Your task to perform on an android device: Is it going to rain this weekend? Image 0: 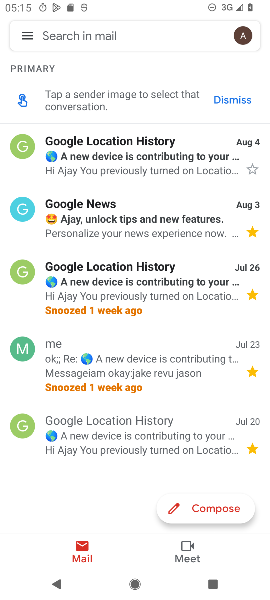
Step 0: press home button
Your task to perform on an android device: Is it going to rain this weekend? Image 1: 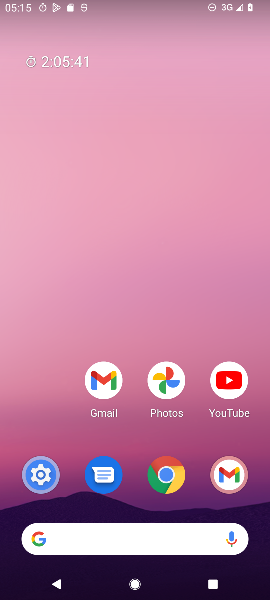
Step 1: click (120, 539)
Your task to perform on an android device: Is it going to rain this weekend? Image 2: 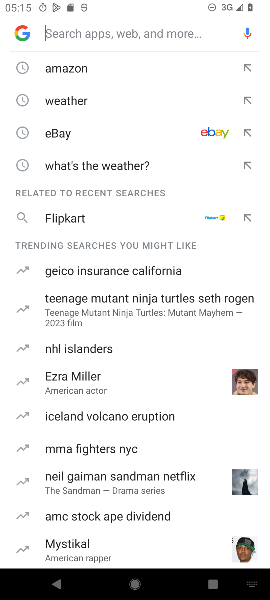
Step 2: click (90, 92)
Your task to perform on an android device: Is it going to rain this weekend? Image 3: 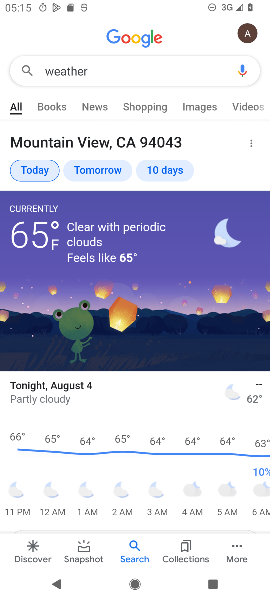
Step 3: click (163, 167)
Your task to perform on an android device: Is it going to rain this weekend? Image 4: 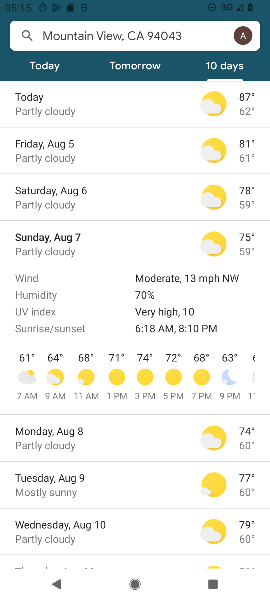
Step 4: task complete